Your task to perform on an android device: What's the weather today? Image 0: 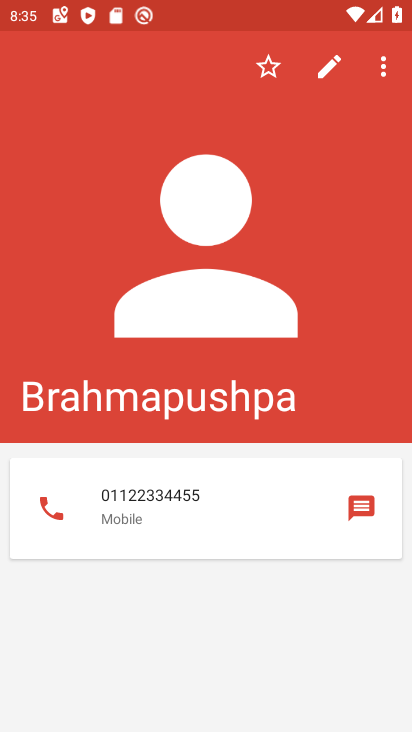
Step 0: press home button
Your task to perform on an android device: What's the weather today? Image 1: 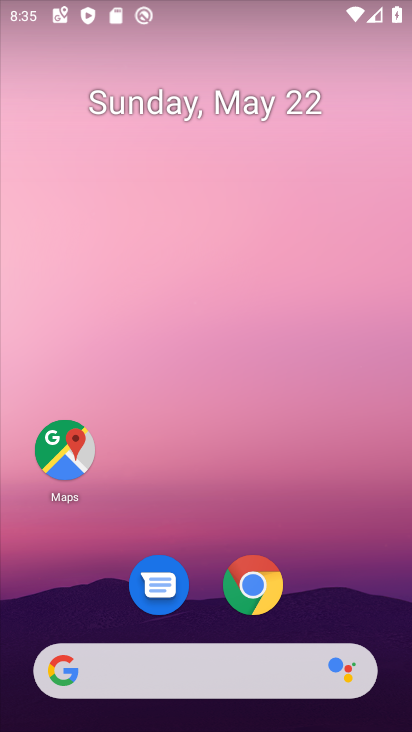
Step 1: click (243, 664)
Your task to perform on an android device: What's the weather today? Image 2: 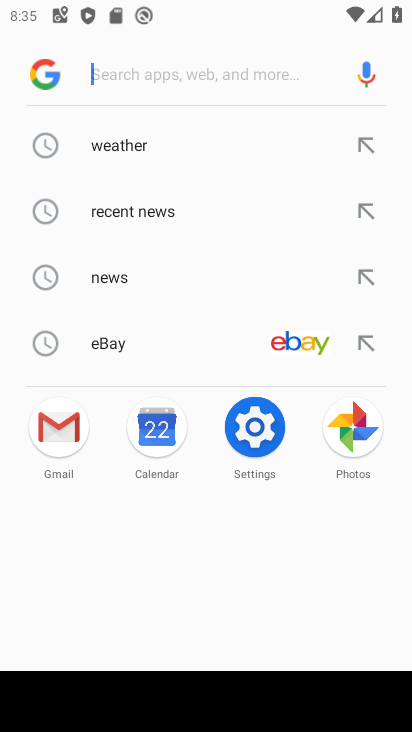
Step 2: click (91, 150)
Your task to perform on an android device: What's the weather today? Image 3: 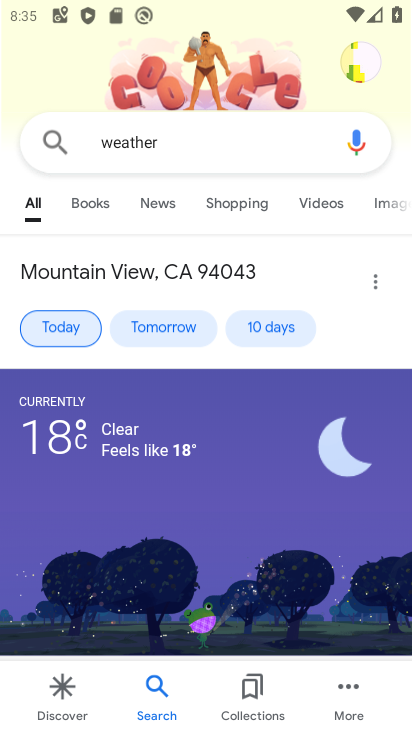
Step 3: click (50, 323)
Your task to perform on an android device: What's the weather today? Image 4: 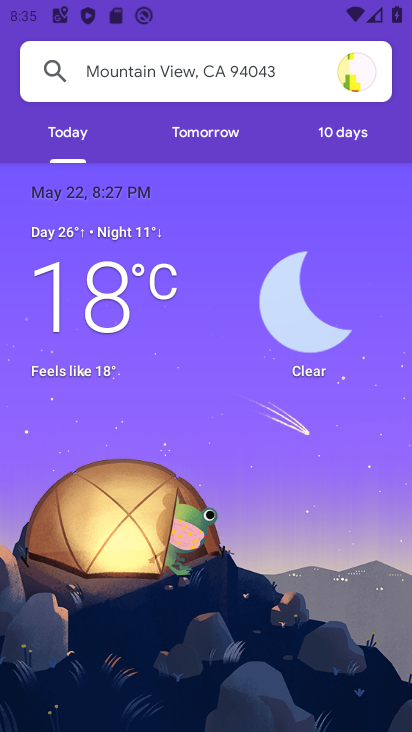
Step 4: task complete